Your task to perform on an android device: change the clock style Image 0: 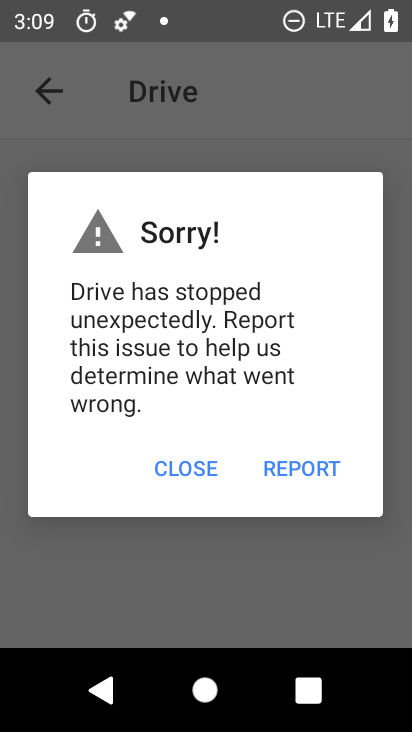
Step 0: click (212, 457)
Your task to perform on an android device: change the clock style Image 1: 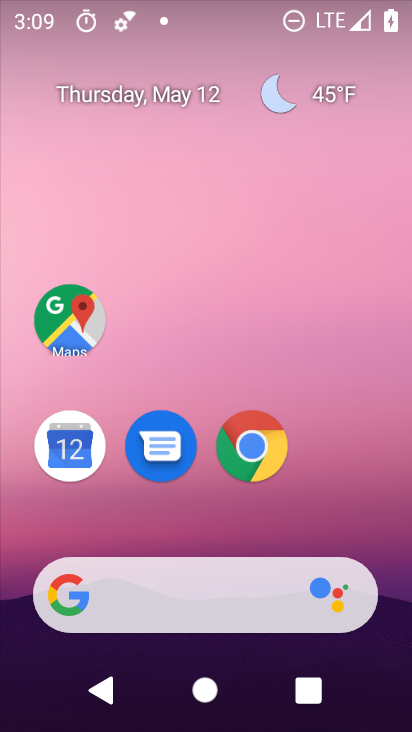
Step 1: drag from (238, 498) to (238, 187)
Your task to perform on an android device: change the clock style Image 2: 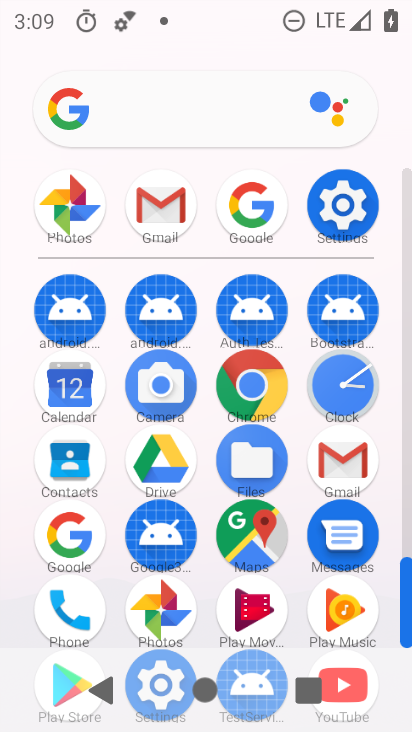
Step 2: click (325, 372)
Your task to perform on an android device: change the clock style Image 3: 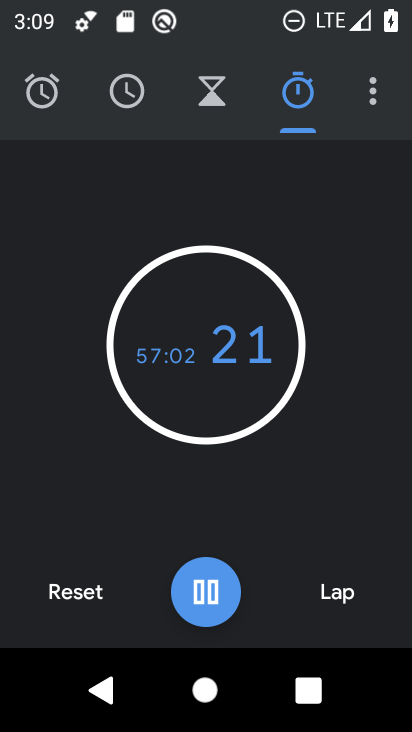
Step 3: click (379, 95)
Your task to perform on an android device: change the clock style Image 4: 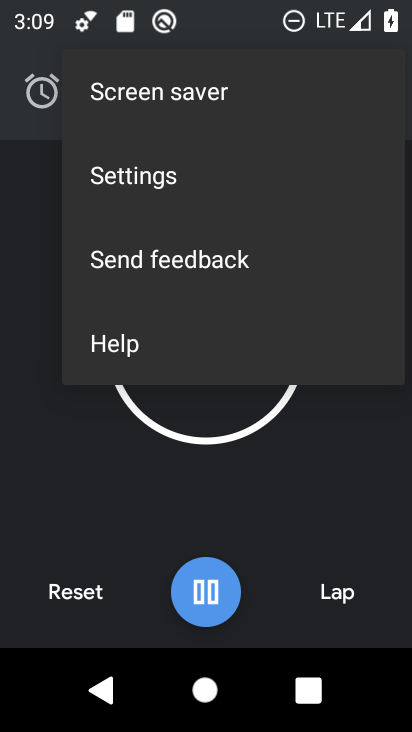
Step 4: click (125, 187)
Your task to perform on an android device: change the clock style Image 5: 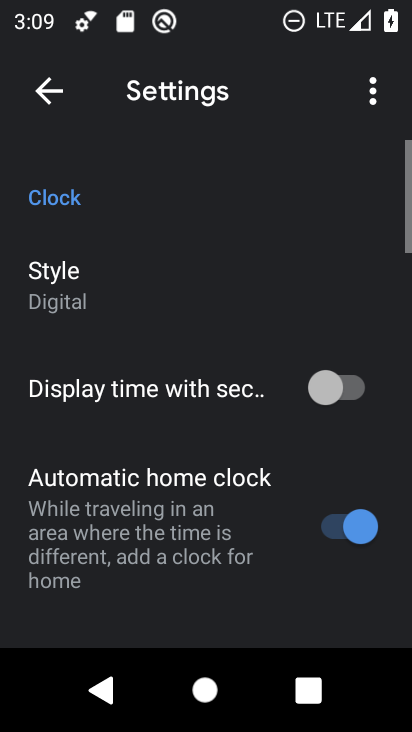
Step 5: click (133, 273)
Your task to perform on an android device: change the clock style Image 6: 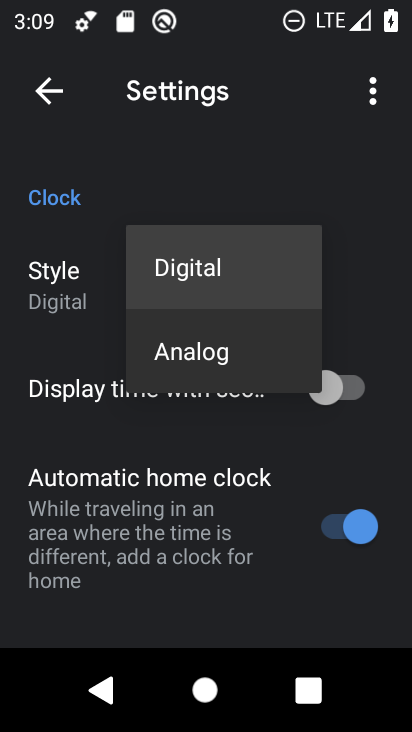
Step 6: click (214, 329)
Your task to perform on an android device: change the clock style Image 7: 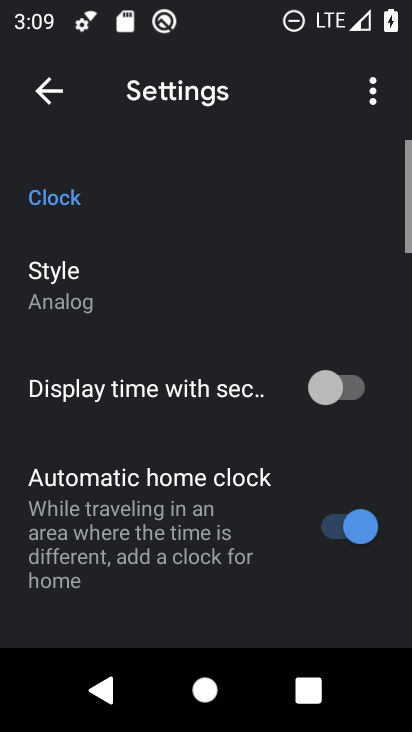
Step 7: task complete